Your task to perform on an android device: Go to CNN.com Image 0: 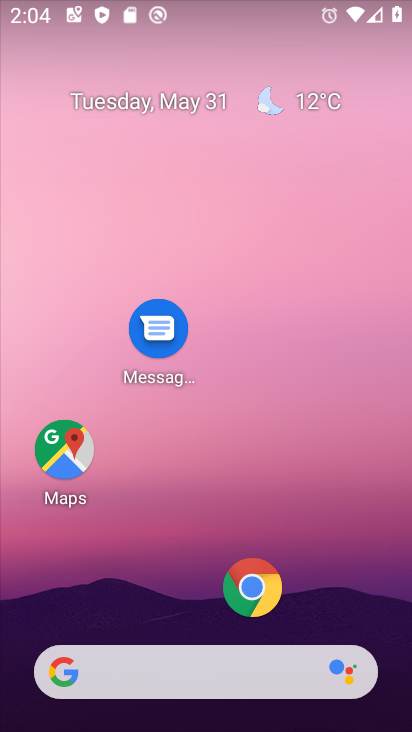
Step 0: drag from (205, 572) to (223, 127)
Your task to perform on an android device: Go to CNN.com Image 1: 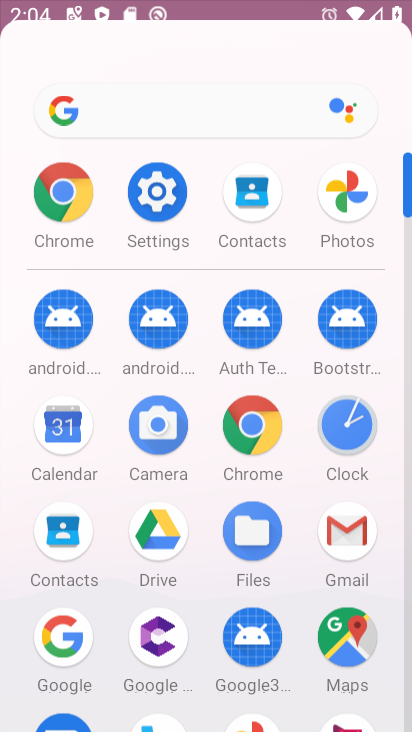
Step 1: drag from (186, 551) to (173, 119)
Your task to perform on an android device: Go to CNN.com Image 2: 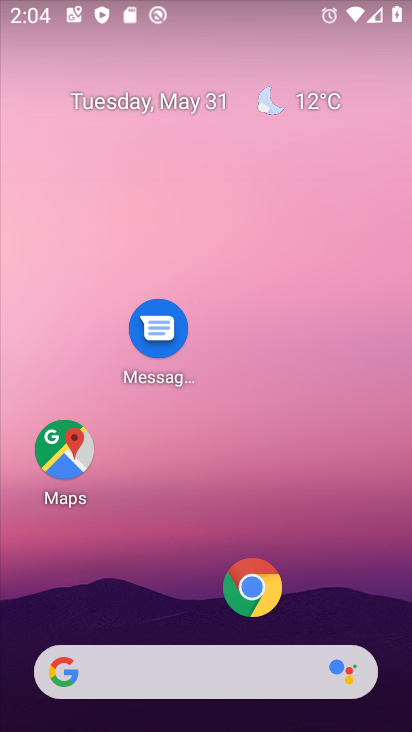
Step 2: drag from (209, 586) to (236, 135)
Your task to perform on an android device: Go to CNN.com Image 3: 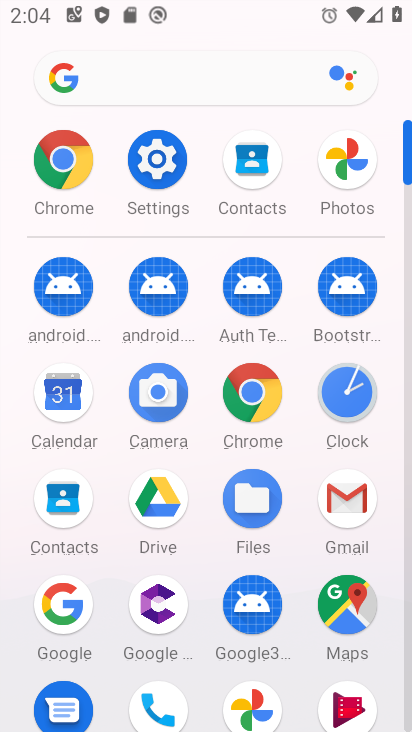
Step 3: click (99, 85)
Your task to perform on an android device: Go to CNN.com Image 4: 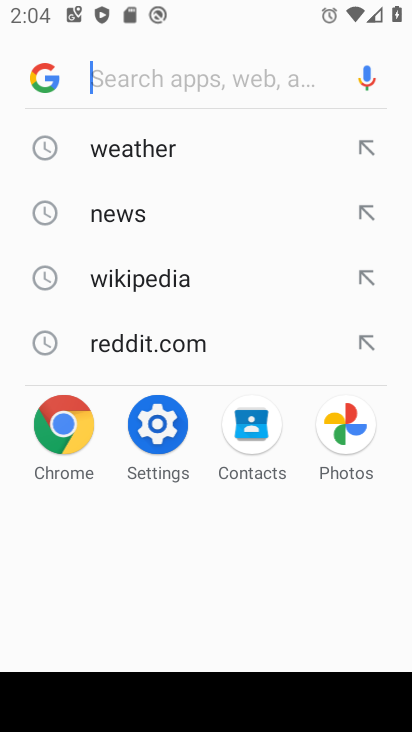
Step 4: type "CNN.com"
Your task to perform on an android device: Go to CNN.com Image 5: 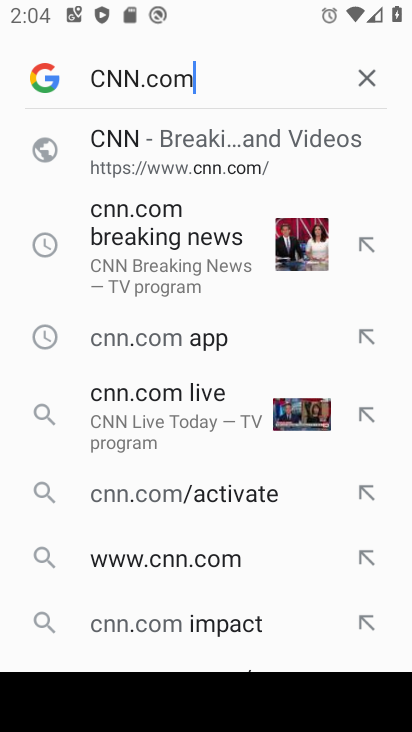
Step 5: click (193, 147)
Your task to perform on an android device: Go to CNN.com Image 6: 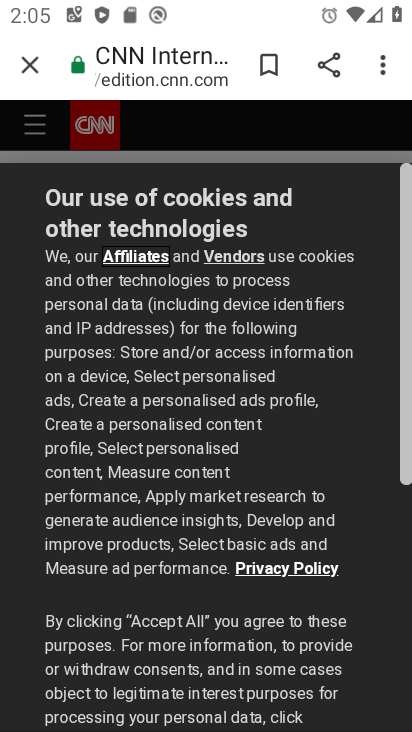
Step 6: task complete